Your task to perform on an android device: toggle wifi Image 0: 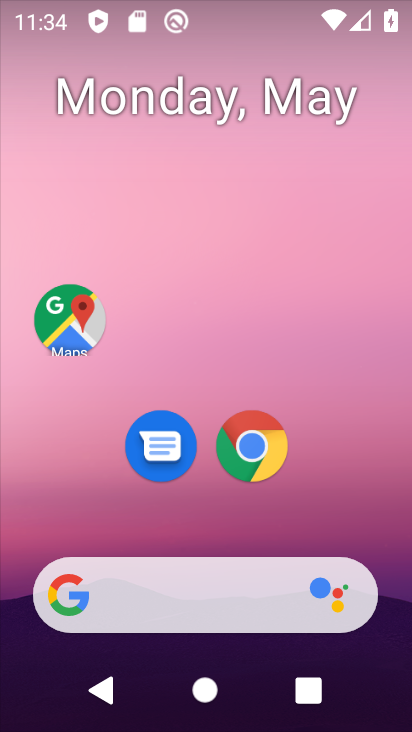
Step 0: drag from (344, 491) to (372, 12)
Your task to perform on an android device: toggle wifi Image 1: 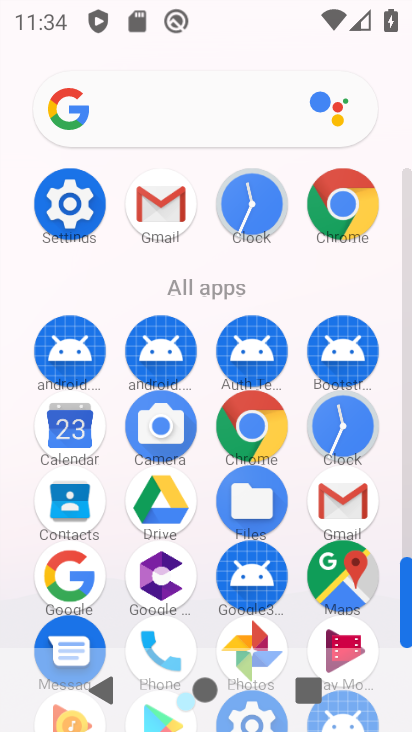
Step 1: click (70, 201)
Your task to perform on an android device: toggle wifi Image 2: 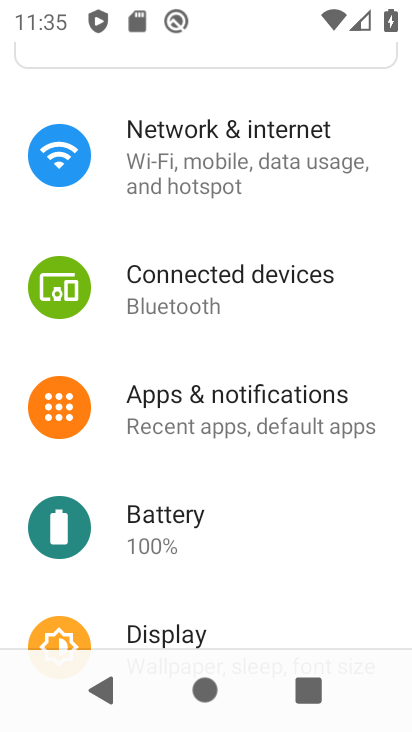
Step 2: click (195, 134)
Your task to perform on an android device: toggle wifi Image 3: 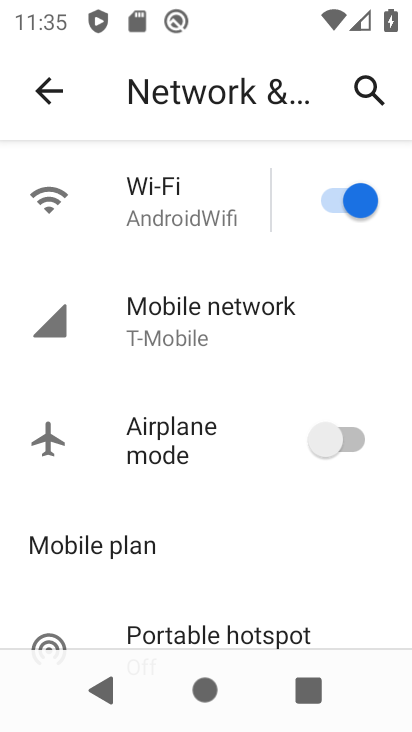
Step 3: click (358, 204)
Your task to perform on an android device: toggle wifi Image 4: 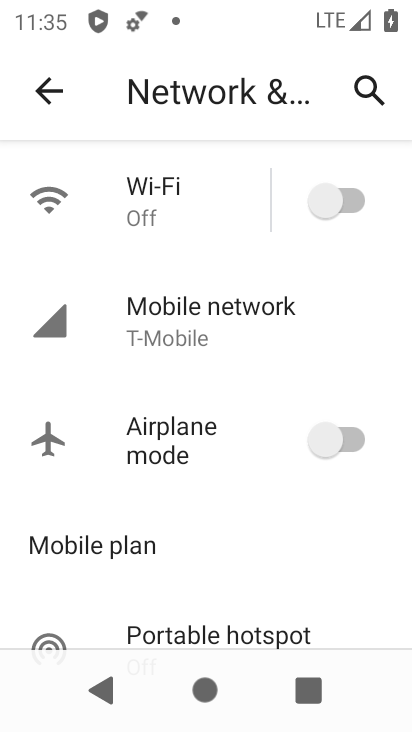
Step 4: task complete